Your task to perform on an android device: turn off location Image 0: 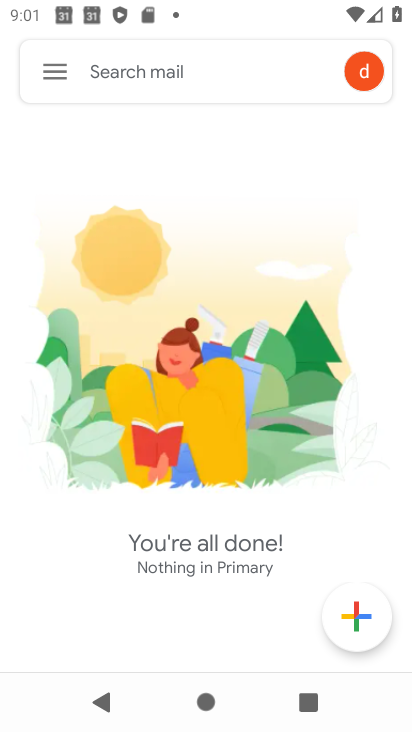
Step 0: press home button
Your task to perform on an android device: turn off location Image 1: 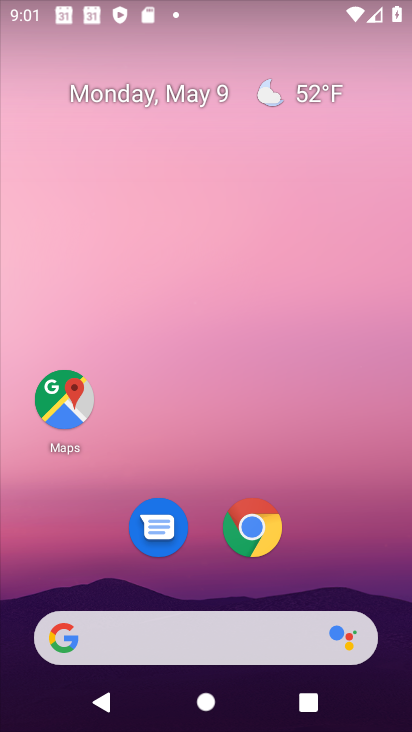
Step 1: drag from (349, 531) to (339, 97)
Your task to perform on an android device: turn off location Image 2: 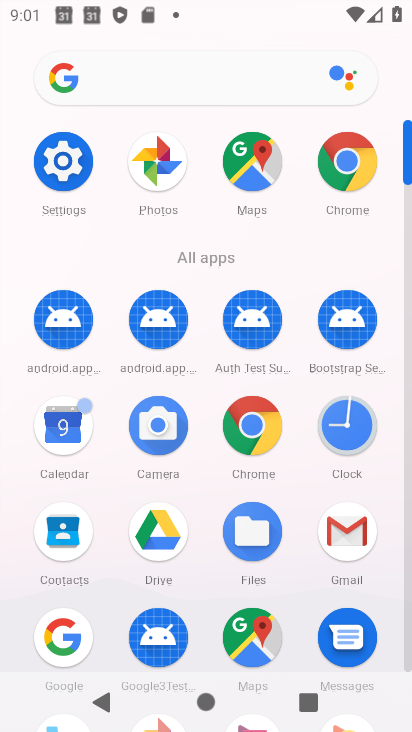
Step 2: click (79, 157)
Your task to perform on an android device: turn off location Image 3: 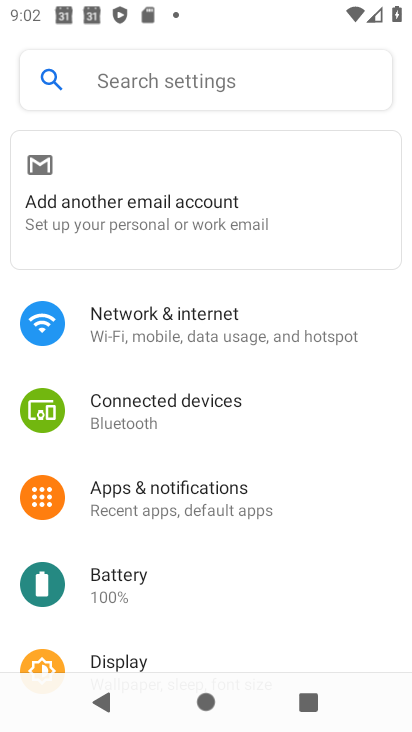
Step 3: drag from (205, 642) to (292, 295)
Your task to perform on an android device: turn off location Image 4: 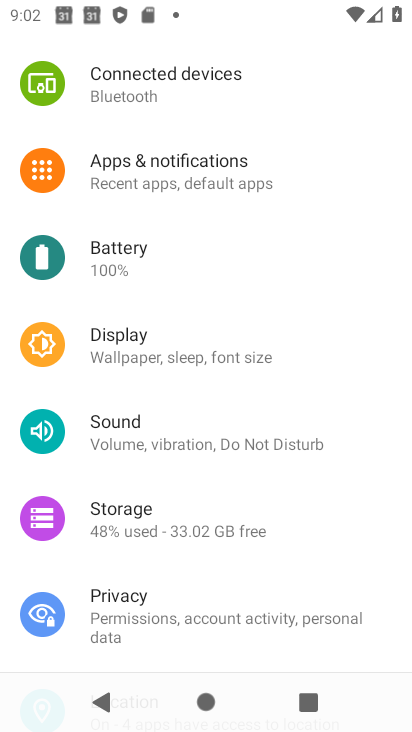
Step 4: drag from (272, 534) to (330, 201)
Your task to perform on an android device: turn off location Image 5: 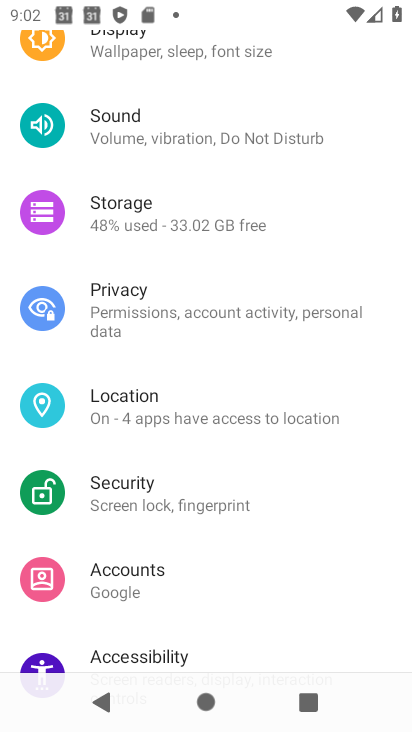
Step 5: click (210, 439)
Your task to perform on an android device: turn off location Image 6: 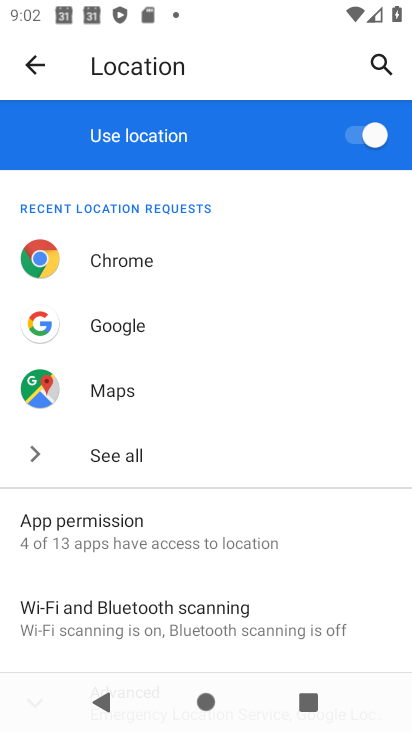
Step 6: click (351, 143)
Your task to perform on an android device: turn off location Image 7: 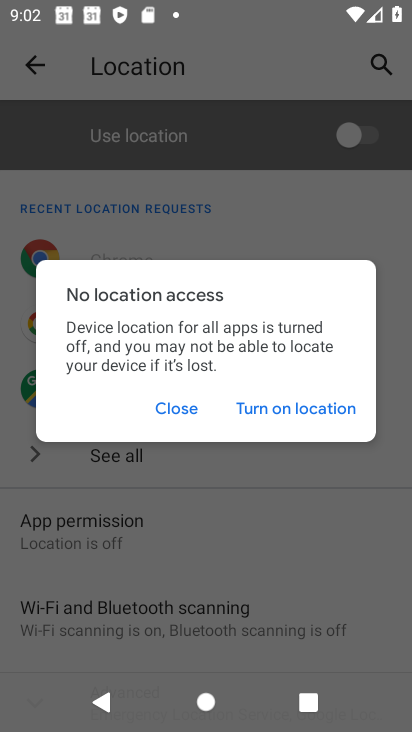
Step 7: click (175, 407)
Your task to perform on an android device: turn off location Image 8: 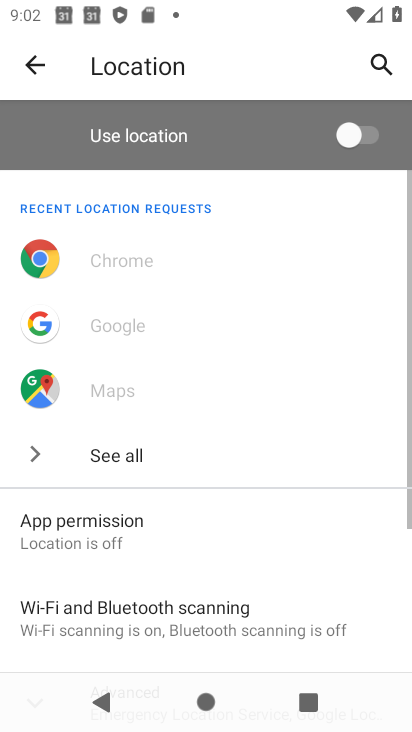
Step 8: task complete